Your task to perform on an android device: turn on javascript in the chrome app Image 0: 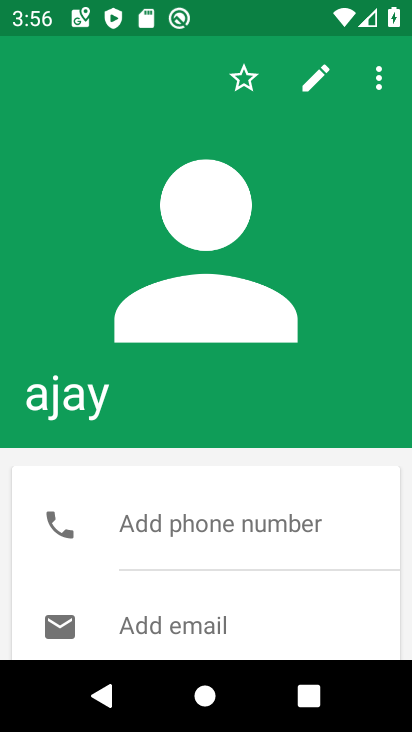
Step 0: press home button
Your task to perform on an android device: turn on javascript in the chrome app Image 1: 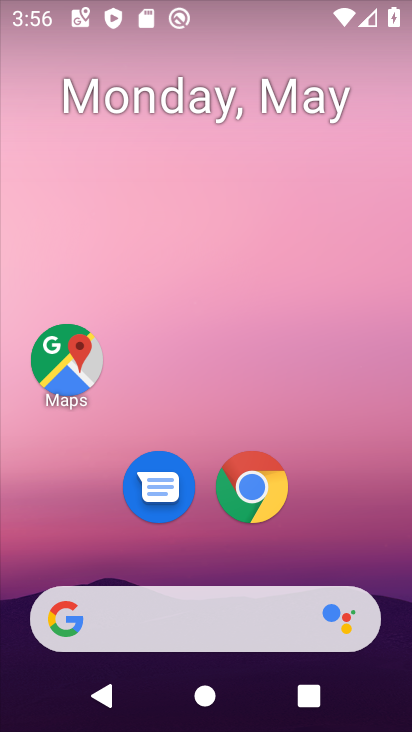
Step 1: click (251, 488)
Your task to perform on an android device: turn on javascript in the chrome app Image 2: 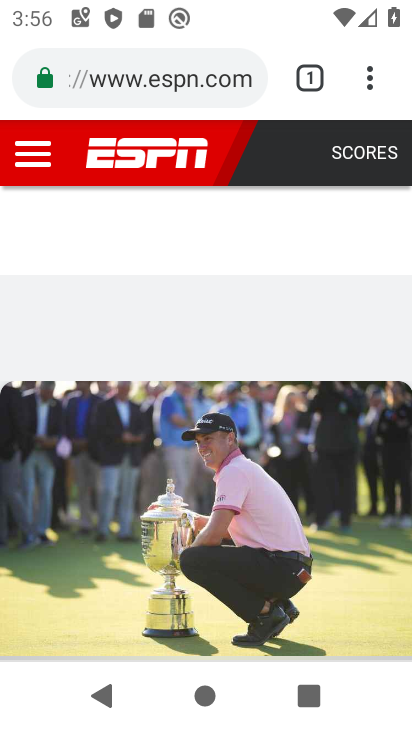
Step 2: click (368, 80)
Your task to perform on an android device: turn on javascript in the chrome app Image 3: 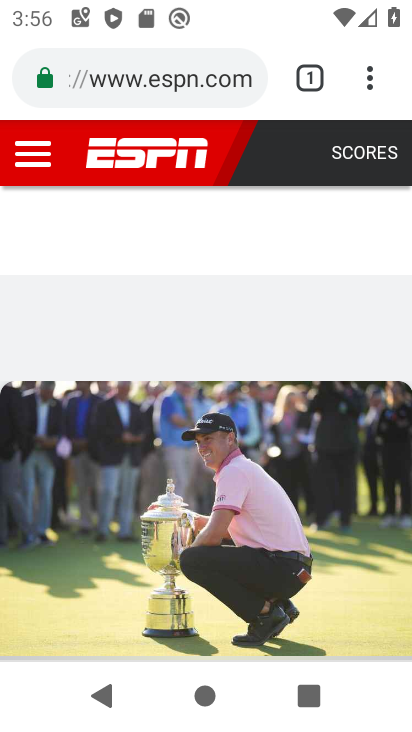
Step 3: click (365, 78)
Your task to perform on an android device: turn on javascript in the chrome app Image 4: 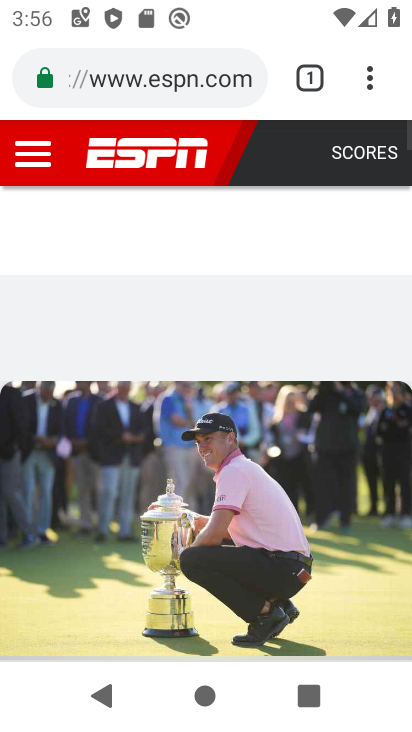
Step 4: click (373, 73)
Your task to perform on an android device: turn on javascript in the chrome app Image 5: 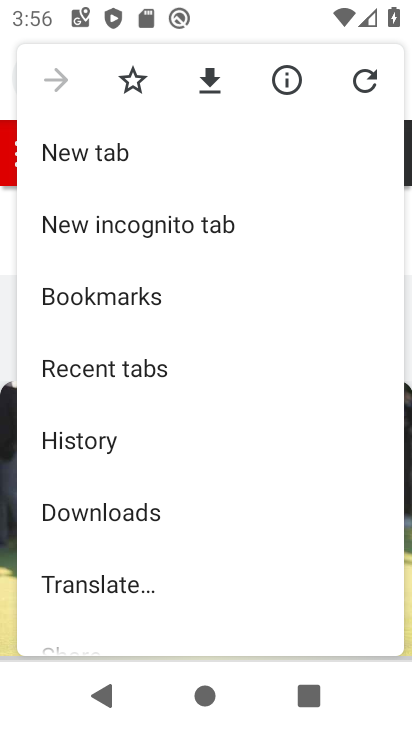
Step 5: drag from (169, 564) to (163, 215)
Your task to perform on an android device: turn on javascript in the chrome app Image 6: 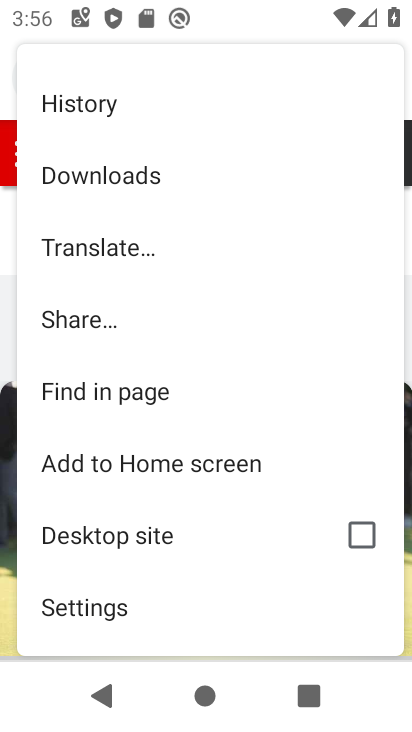
Step 6: click (131, 608)
Your task to perform on an android device: turn on javascript in the chrome app Image 7: 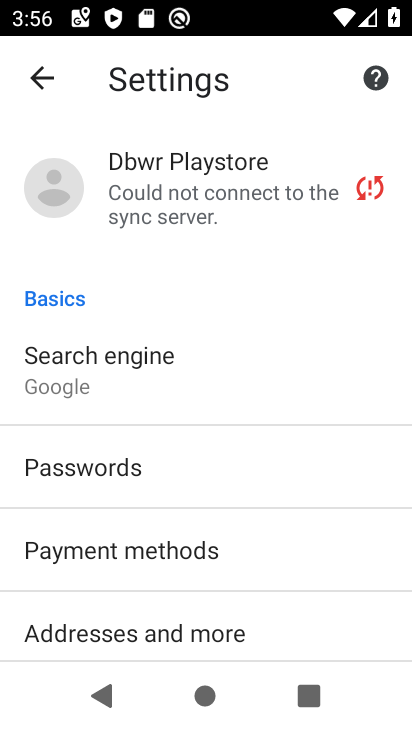
Step 7: drag from (178, 615) to (182, 211)
Your task to perform on an android device: turn on javascript in the chrome app Image 8: 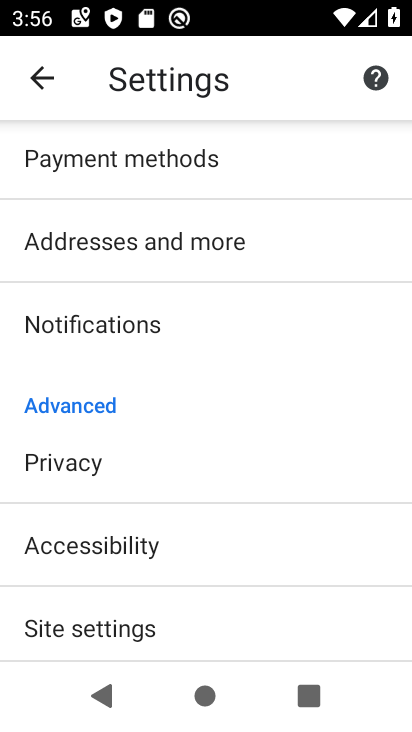
Step 8: click (113, 634)
Your task to perform on an android device: turn on javascript in the chrome app Image 9: 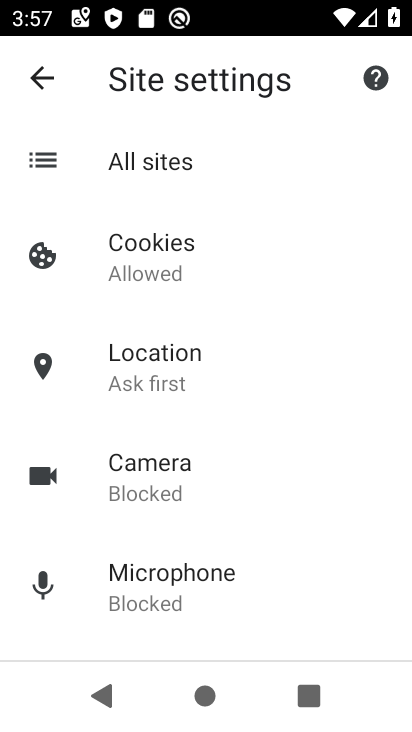
Step 9: drag from (197, 619) to (236, 189)
Your task to perform on an android device: turn on javascript in the chrome app Image 10: 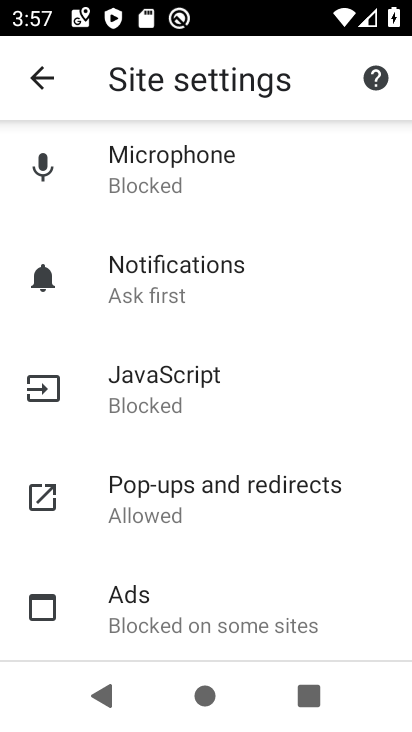
Step 10: click (145, 387)
Your task to perform on an android device: turn on javascript in the chrome app Image 11: 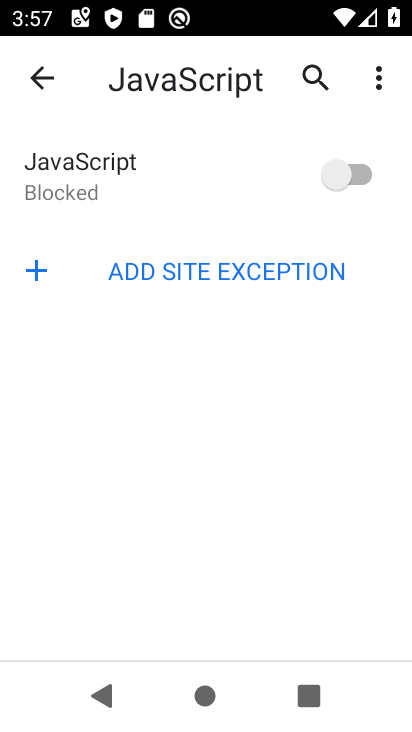
Step 11: click (360, 173)
Your task to perform on an android device: turn on javascript in the chrome app Image 12: 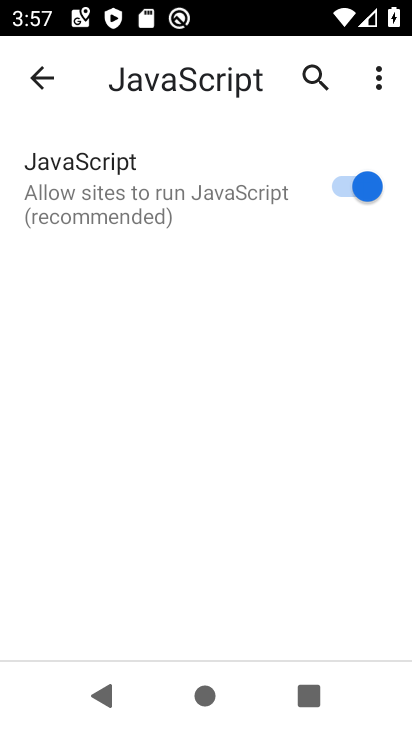
Step 12: task complete